Your task to perform on an android device: turn on bluetooth scan Image 0: 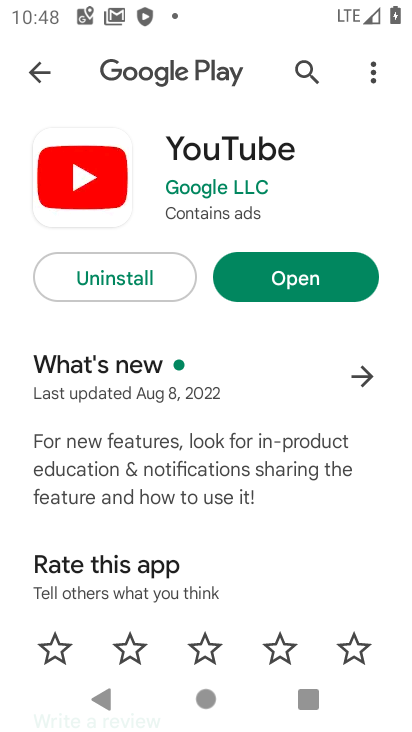
Step 0: press home button
Your task to perform on an android device: turn on bluetooth scan Image 1: 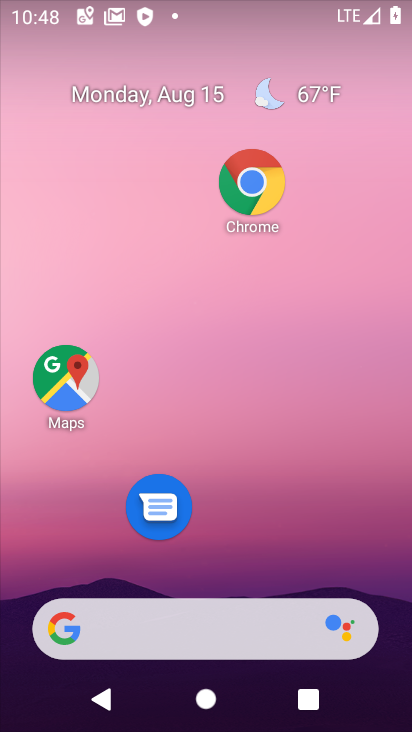
Step 1: drag from (250, 565) to (321, 52)
Your task to perform on an android device: turn on bluetooth scan Image 2: 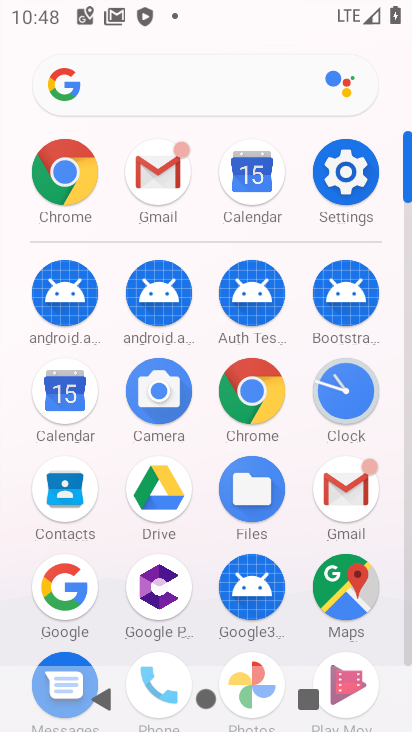
Step 2: click (340, 214)
Your task to perform on an android device: turn on bluetooth scan Image 3: 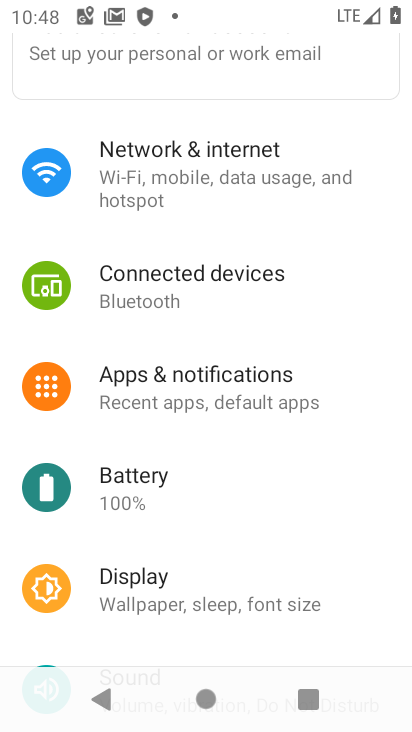
Step 3: drag from (225, 554) to (243, 158)
Your task to perform on an android device: turn on bluetooth scan Image 4: 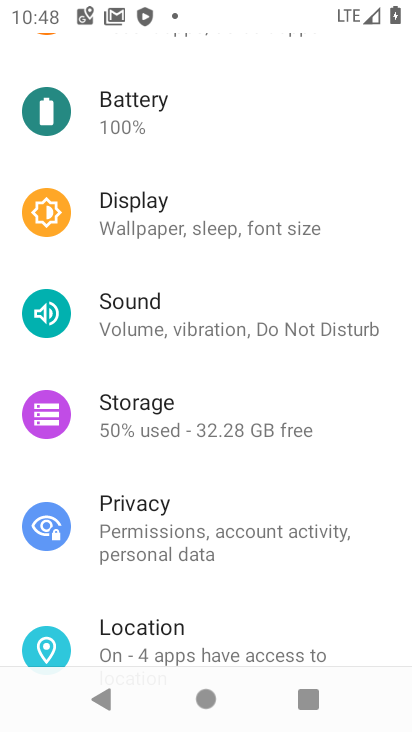
Step 4: click (242, 628)
Your task to perform on an android device: turn on bluetooth scan Image 5: 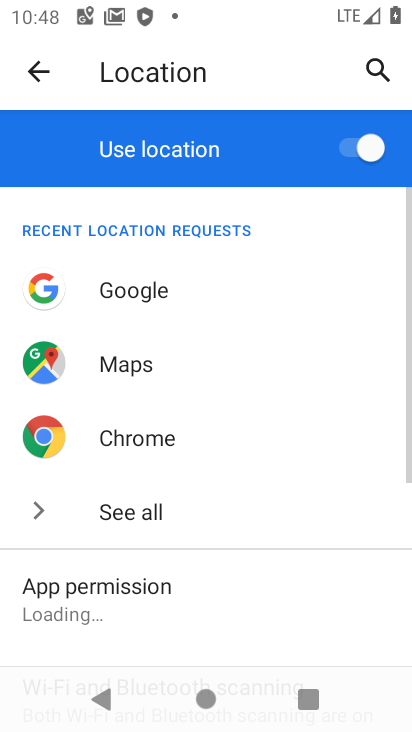
Step 5: drag from (226, 571) to (264, 118)
Your task to perform on an android device: turn on bluetooth scan Image 6: 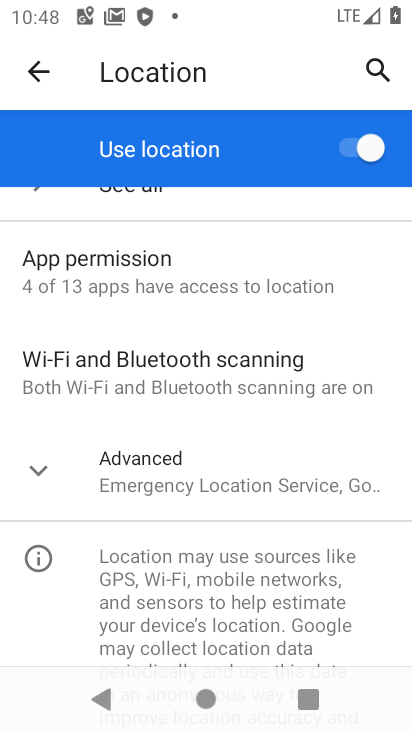
Step 6: click (292, 398)
Your task to perform on an android device: turn on bluetooth scan Image 7: 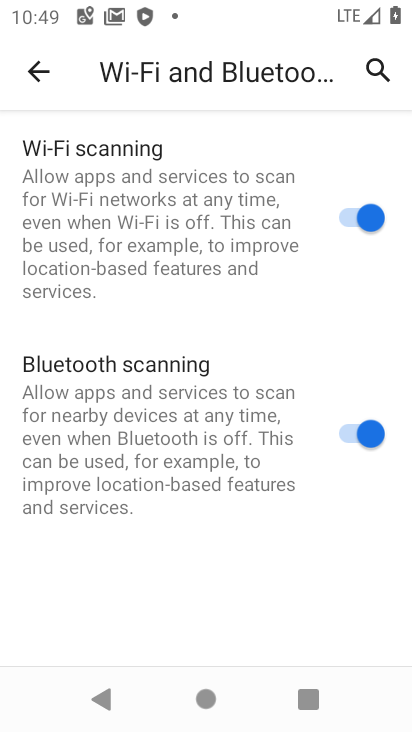
Step 7: task complete